Your task to perform on an android device: Open Chrome and go to the settings page Image 0: 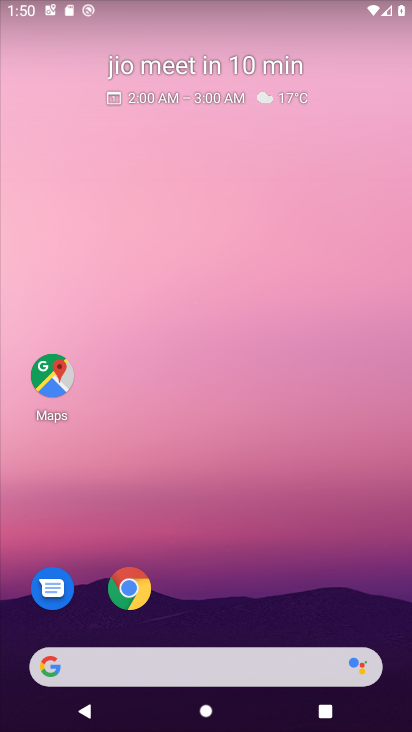
Step 0: click (131, 588)
Your task to perform on an android device: Open Chrome and go to the settings page Image 1: 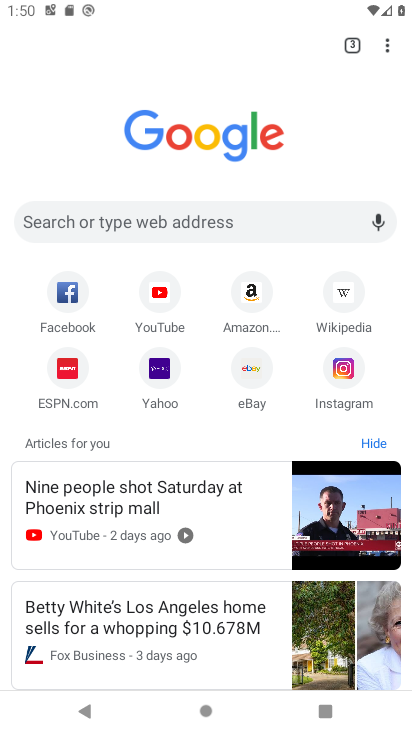
Step 1: click (389, 34)
Your task to perform on an android device: Open Chrome and go to the settings page Image 2: 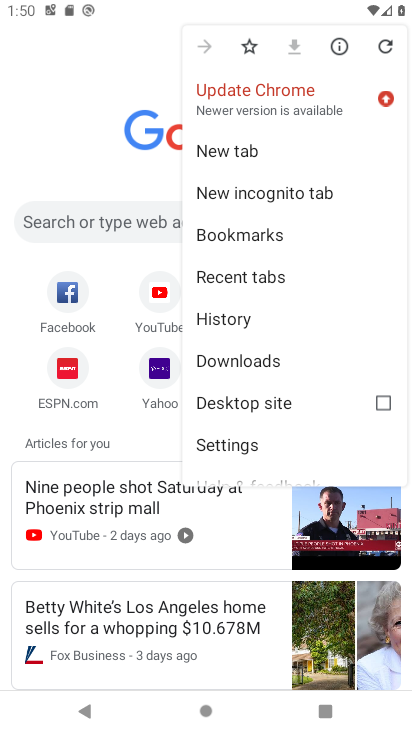
Step 2: click (249, 449)
Your task to perform on an android device: Open Chrome and go to the settings page Image 3: 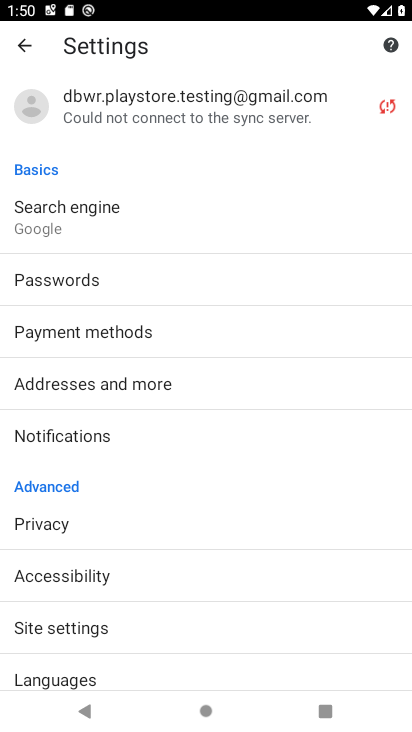
Step 3: task complete